Your task to perform on an android device: Show me recent news Image 0: 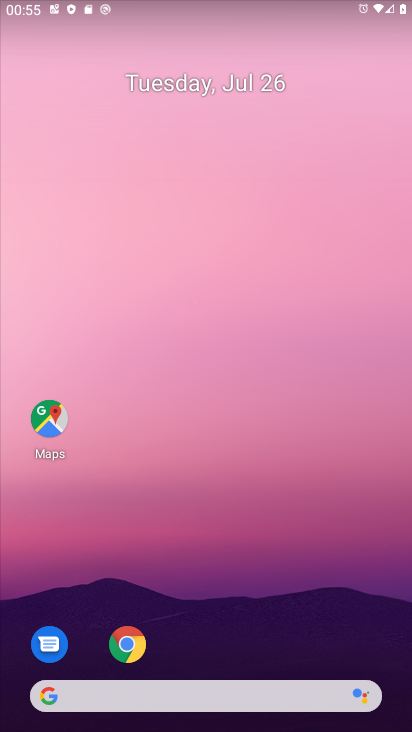
Step 0: drag from (237, 656) to (232, 231)
Your task to perform on an android device: Show me recent news Image 1: 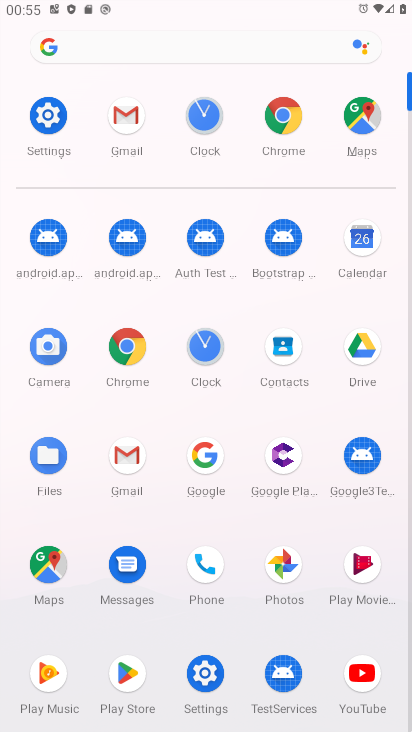
Step 1: click (131, 345)
Your task to perform on an android device: Show me recent news Image 2: 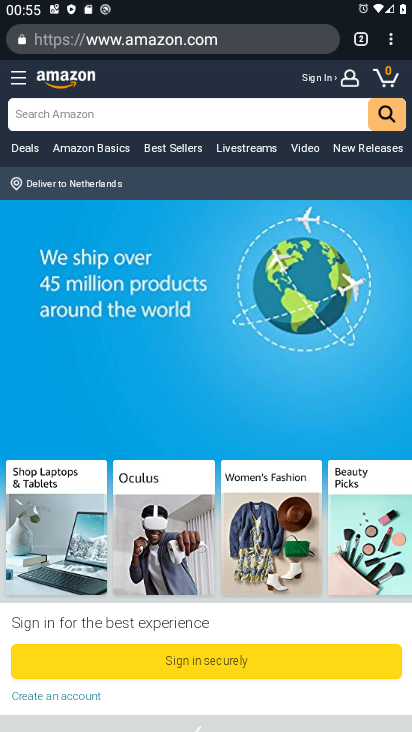
Step 2: click (393, 41)
Your task to perform on an android device: Show me recent news Image 3: 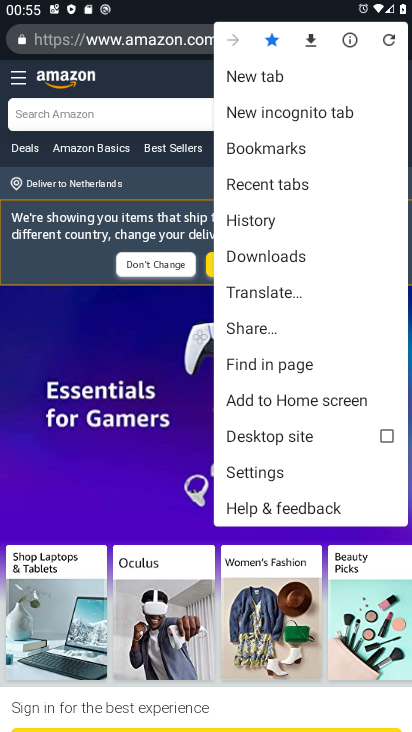
Step 3: click (265, 65)
Your task to perform on an android device: Show me recent news Image 4: 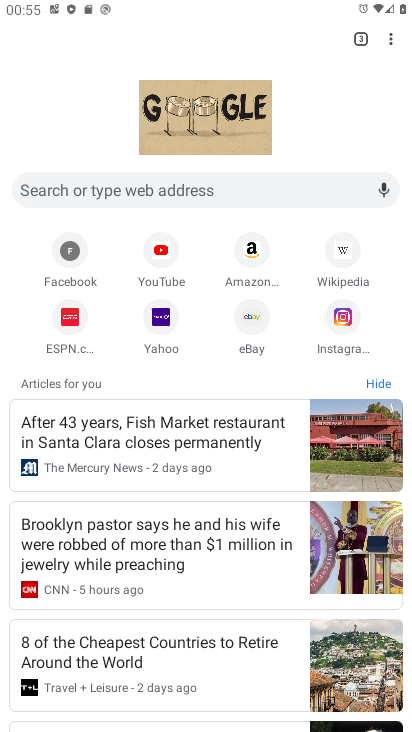
Step 4: click (242, 182)
Your task to perform on an android device: Show me recent news Image 5: 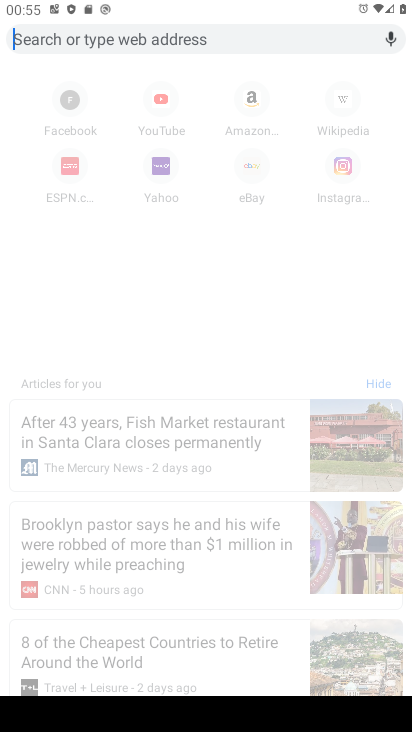
Step 5: type "Show me recent news "
Your task to perform on an android device: Show me recent news Image 6: 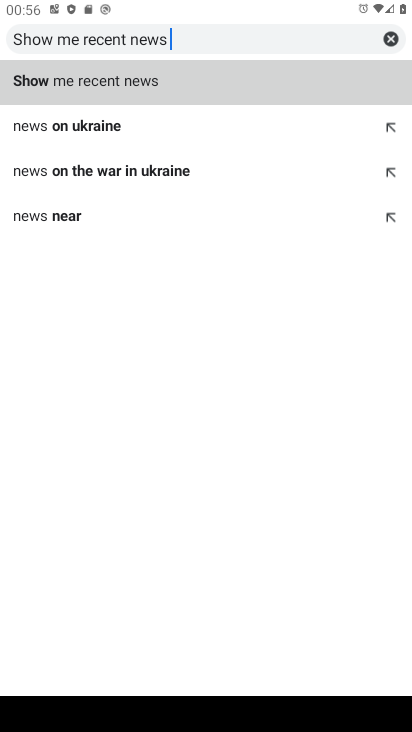
Step 6: click (201, 71)
Your task to perform on an android device: Show me recent news Image 7: 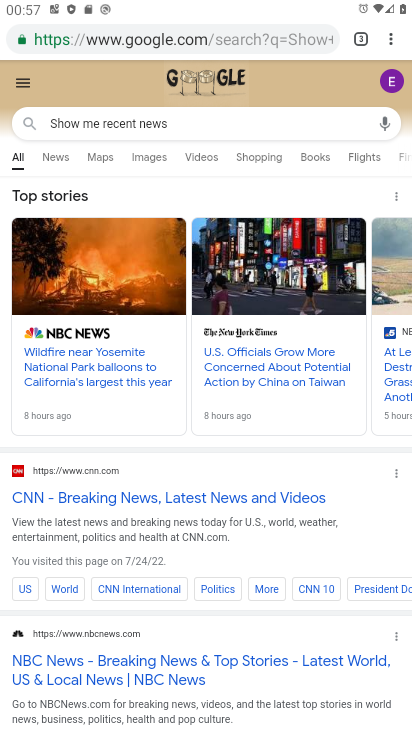
Step 7: task complete